Your task to perform on an android device: open wifi settings Image 0: 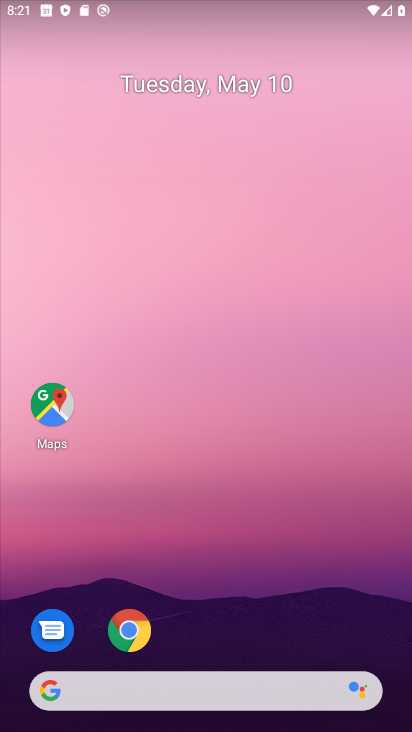
Step 0: drag from (253, 721) to (303, 5)
Your task to perform on an android device: open wifi settings Image 1: 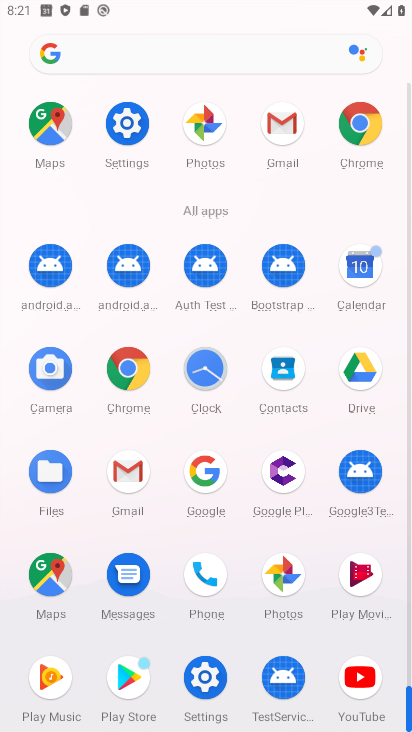
Step 1: click (123, 121)
Your task to perform on an android device: open wifi settings Image 2: 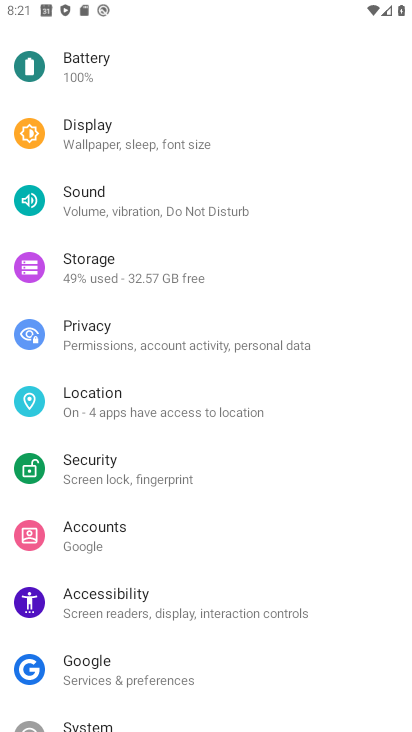
Step 2: drag from (243, 167) to (235, 655)
Your task to perform on an android device: open wifi settings Image 3: 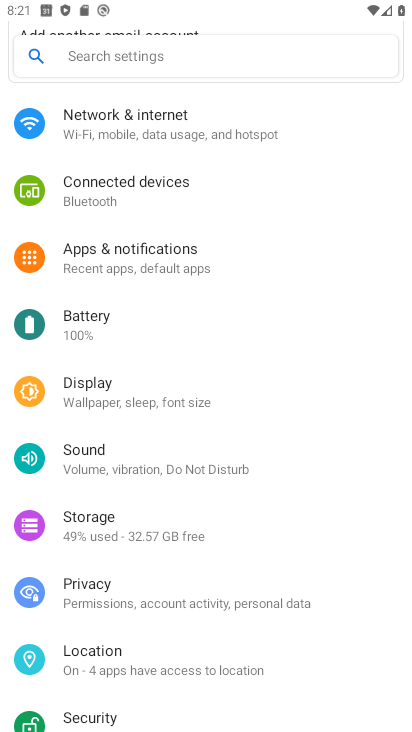
Step 3: click (187, 138)
Your task to perform on an android device: open wifi settings Image 4: 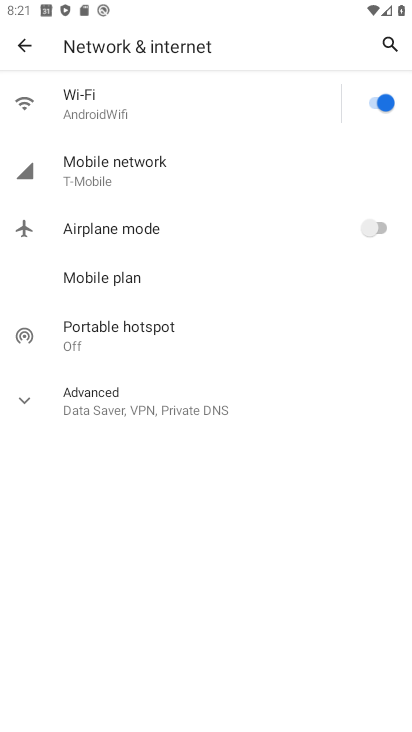
Step 4: click (159, 97)
Your task to perform on an android device: open wifi settings Image 5: 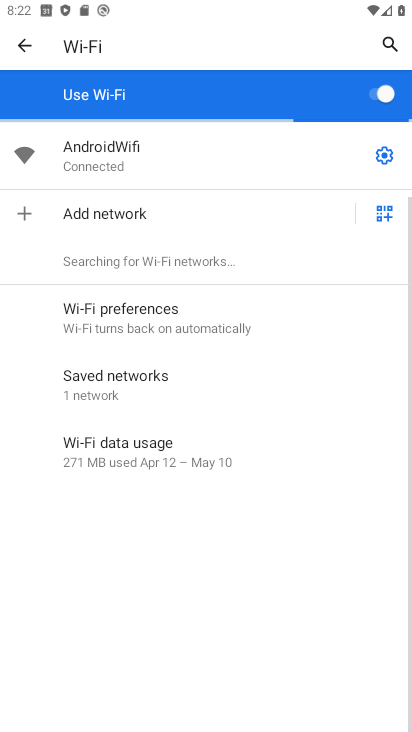
Step 5: click (388, 157)
Your task to perform on an android device: open wifi settings Image 6: 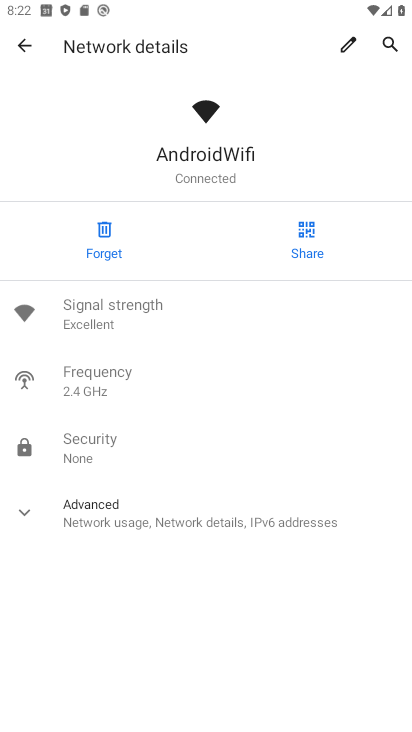
Step 6: task complete